Your task to perform on an android device: Set the phone to "Do not disturb". Image 0: 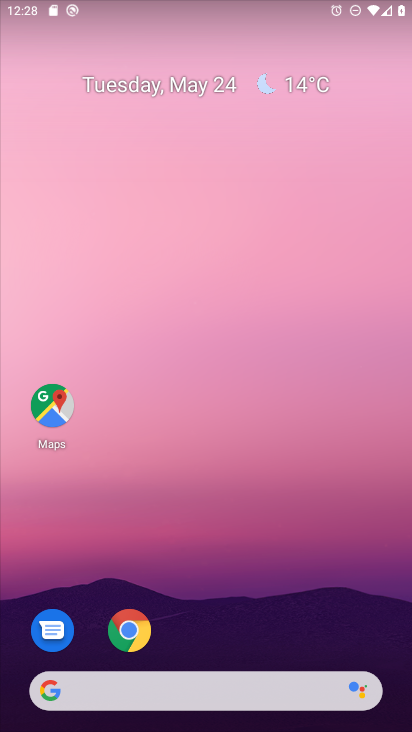
Step 0: drag from (341, 613) to (340, 95)
Your task to perform on an android device: Set the phone to "Do not disturb". Image 1: 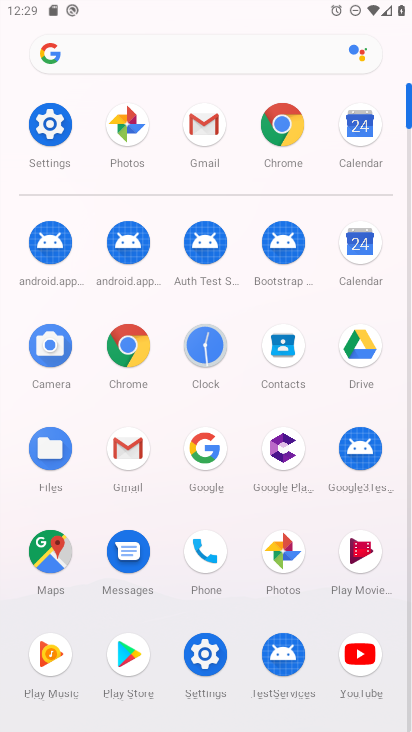
Step 1: click (44, 142)
Your task to perform on an android device: Set the phone to "Do not disturb". Image 2: 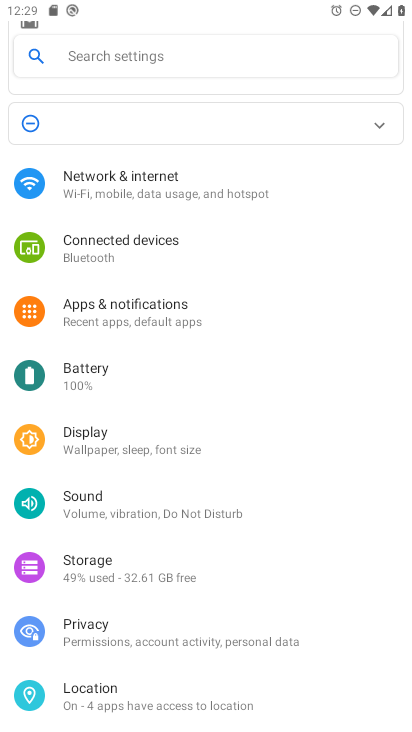
Step 2: click (184, 511)
Your task to perform on an android device: Set the phone to "Do not disturb". Image 3: 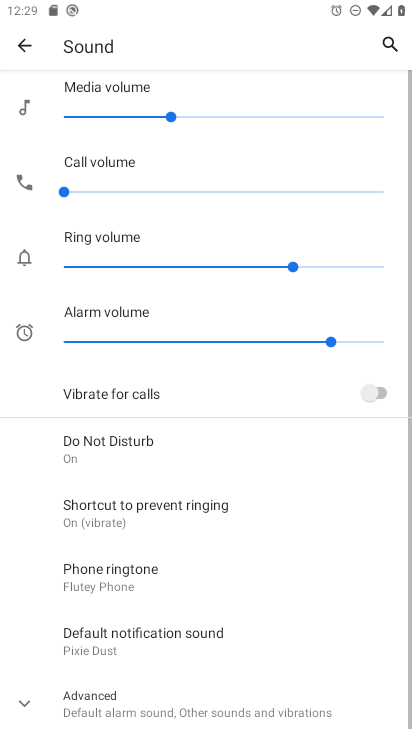
Step 3: drag from (293, 604) to (316, 276)
Your task to perform on an android device: Set the phone to "Do not disturb". Image 4: 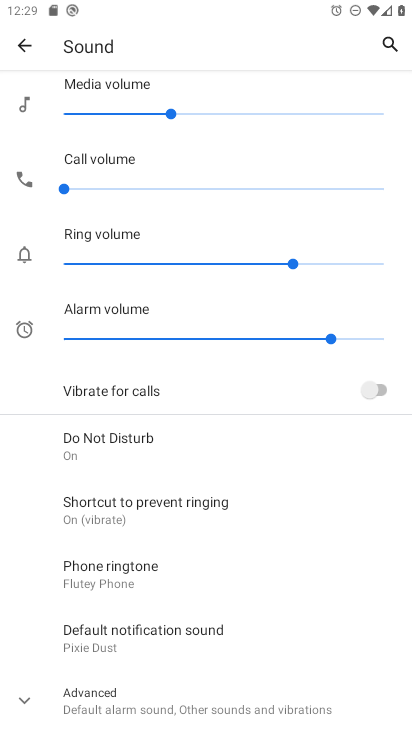
Step 4: click (144, 455)
Your task to perform on an android device: Set the phone to "Do not disturb". Image 5: 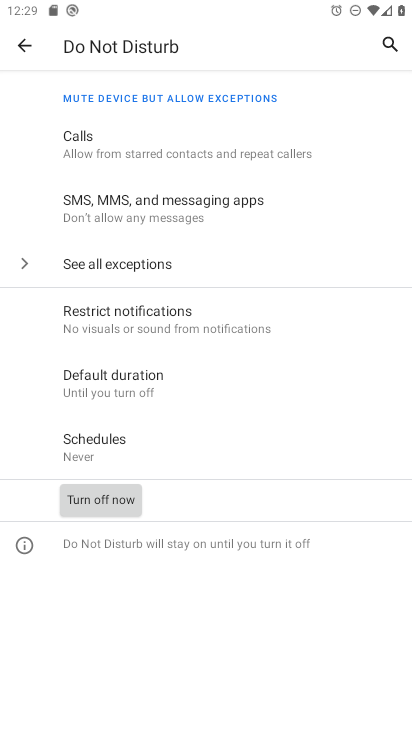
Step 5: task complete